Your task to perform on an android device: Toggle the flashlight Image 0: 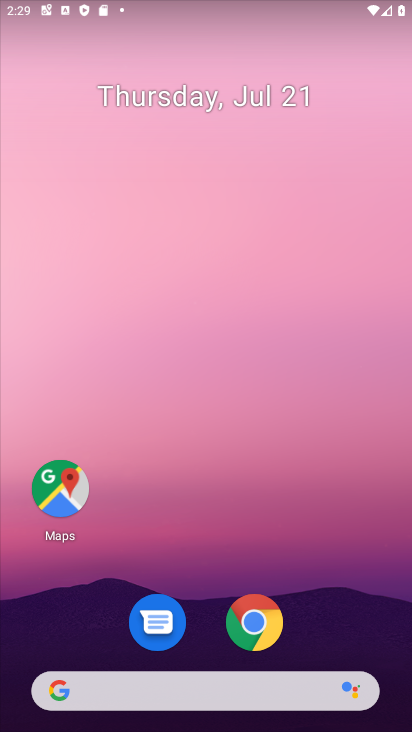
Step 0: drag from (218, 701) to (404, 73)
Your task to perform on an android device: Toggle the flashlight Image 1: 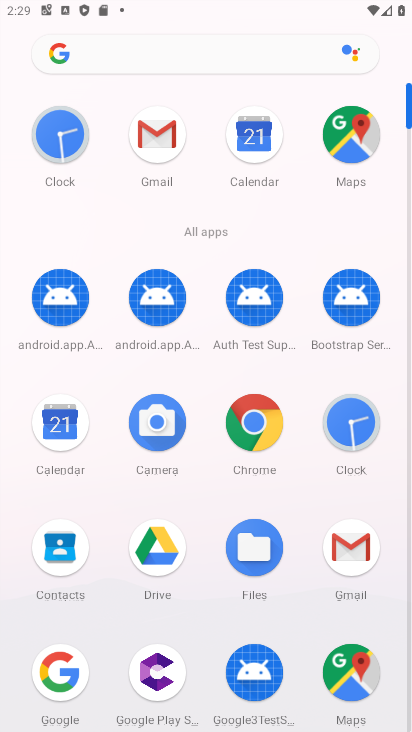
Step 1: drag from (209, 501) to (322, 85)
Your task to perform on an android device: Toggle the flashlight Image 2: 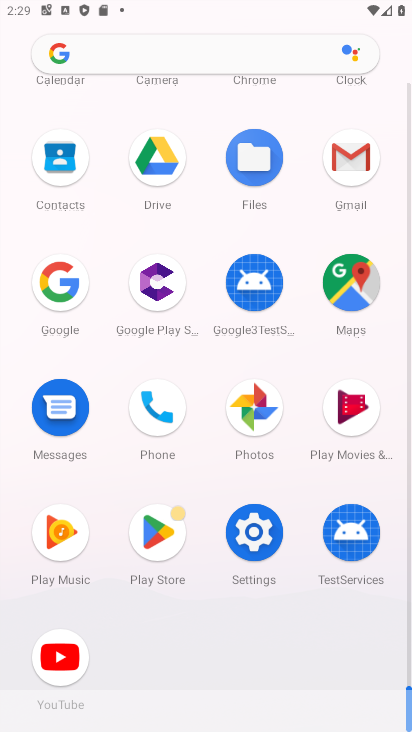
Step 2: click (237, 525)
Your task to perform on an android device: Toggle the flashlight Image 3: 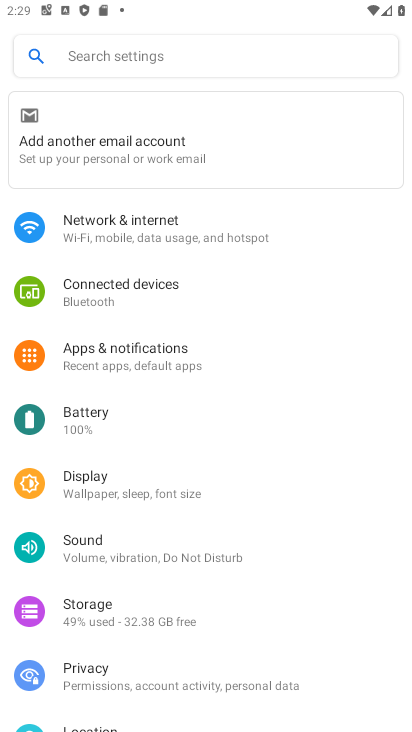
Step 3: click (139, 54)
Your task to perform on an android device: Toggle the flashlight Image 4: 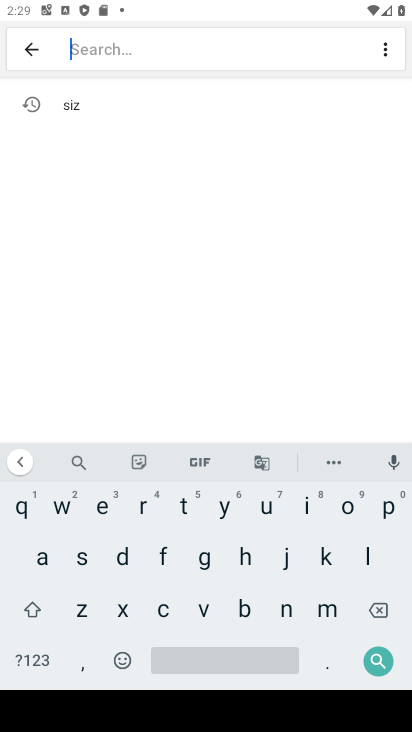
Step 4: click (163, 553)
Your task to perform on an android device: Toggle the flashlight Image 5: 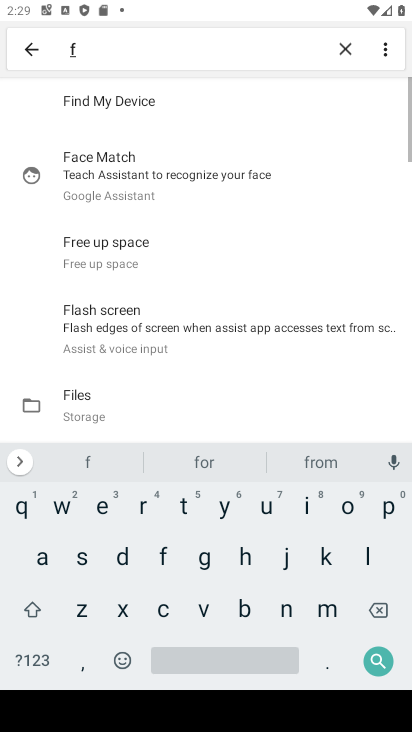
Step 5: click (366, 555)
Your task to perform on an android device: Toggle the flashlight Image 6: 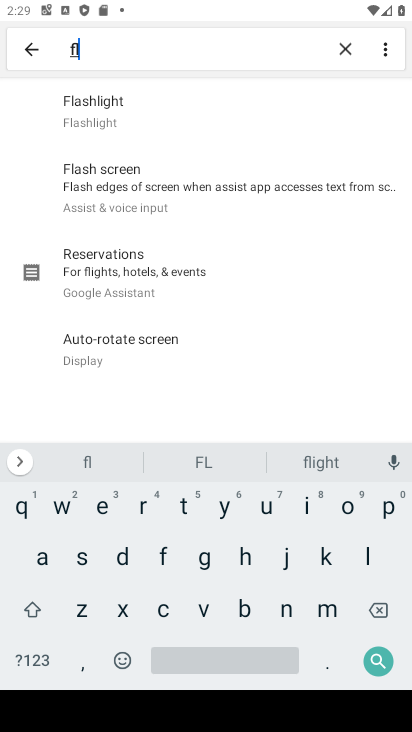
Step 6: click (154, 113)
Your task to perform on an android device: Toggle the flashlight Image 7: 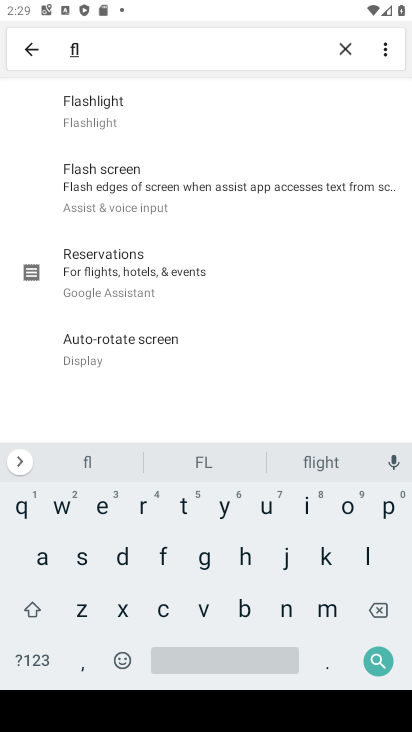
Step 7: task complete